Your task to perform on an android device: Open the phone app and click the voicemail tab. Image 0: 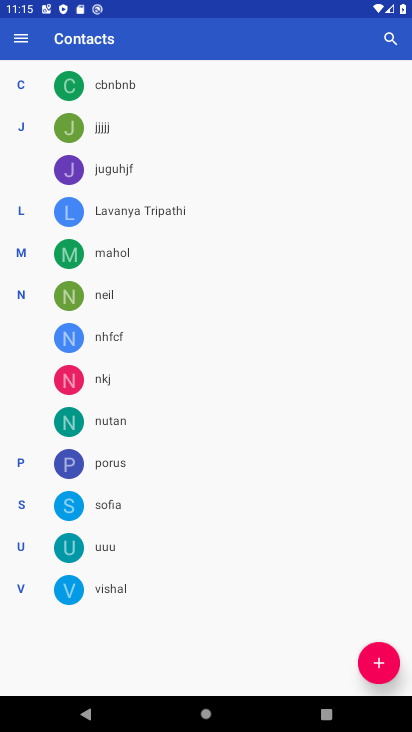
Step 0: press home button
Your task to perform on an android device: Open the phone app and click the voicemail tab. Image 1: 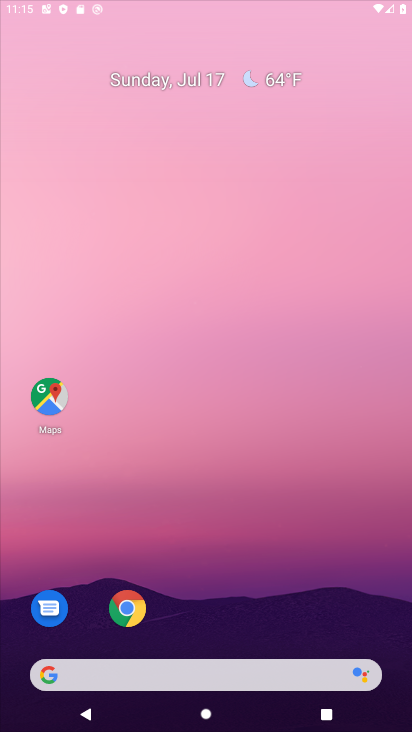
Step 1: drag from (395, 639) to (219, 0)
Your task to perform on an android device: Open the phone app and click the voicemail tab. Image 2: 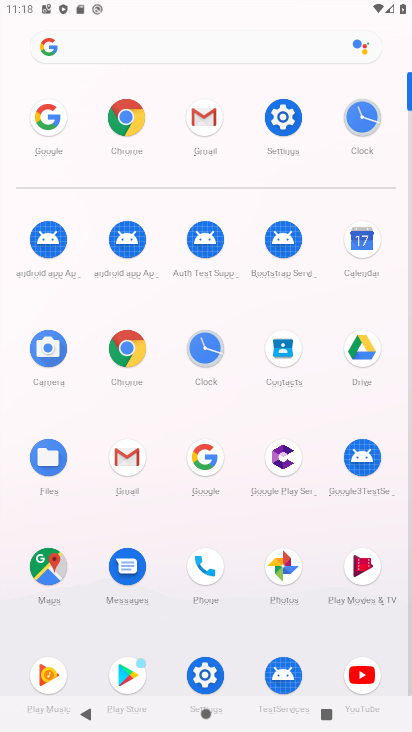
Step 2: click (203, 559)
Your task to perform on an android device: Open the phone app and click the voicemail tab. Image 3: 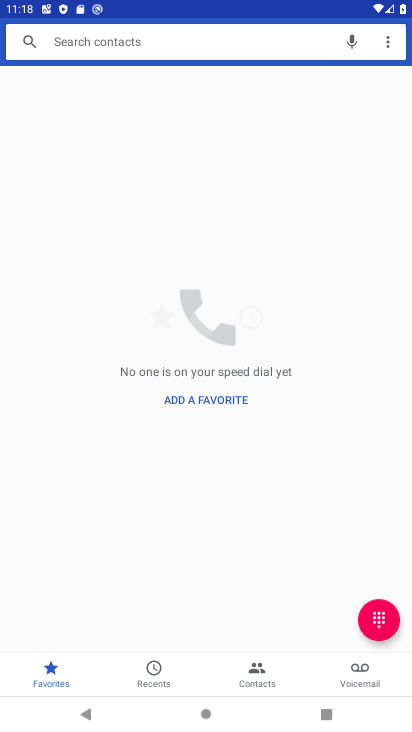
Step 3: click (363, 678)
Your task to perform on an android device: Open the phone app and click the voicemail tab. Image 4: 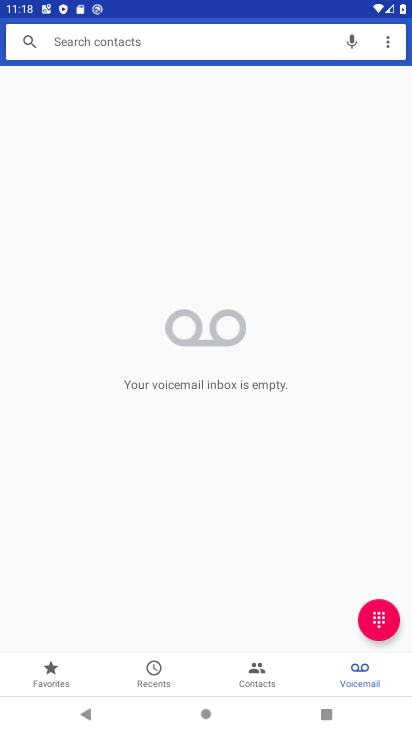
Step 4: task complete